Your task to perform on an android device: Open accessibility settings Image 0: 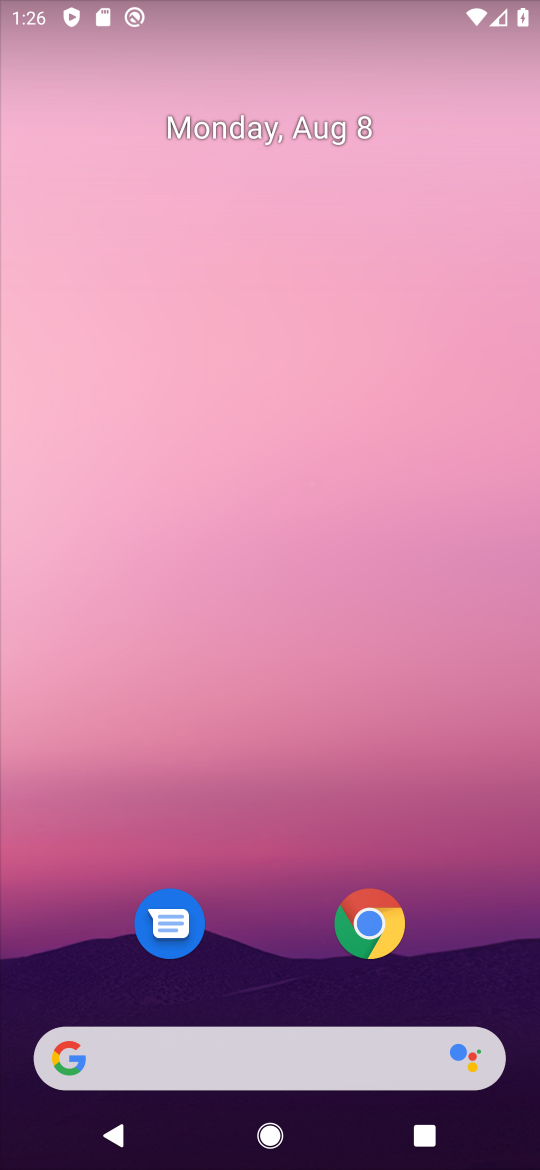
Step 0: drag from (302, 847) to (305, 106)
Your task to perform on an android device: Open accessibility settings Image 1: 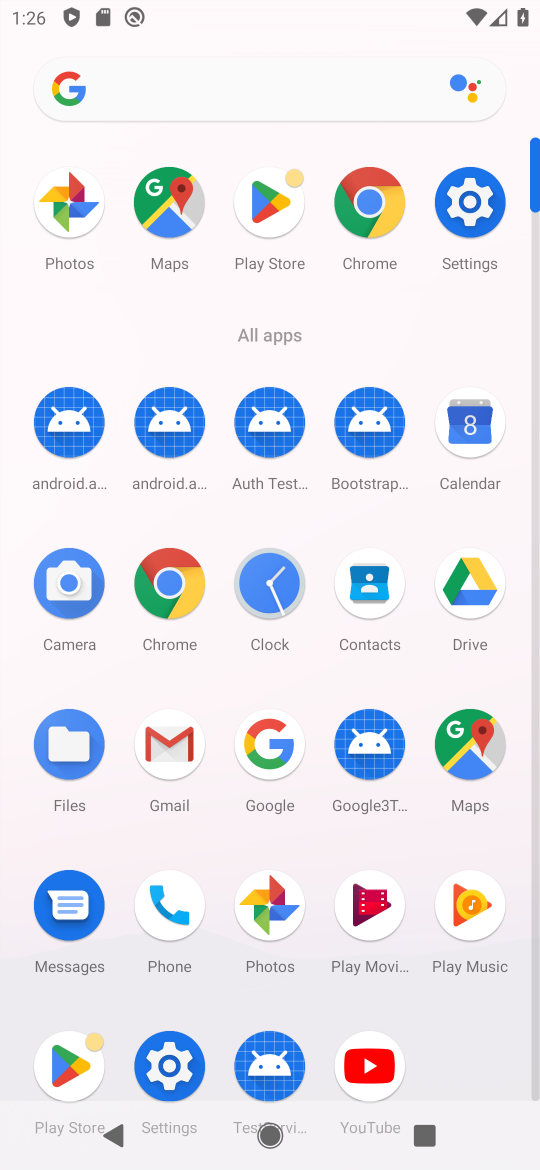
Step 1: click (470, 215)
Your task to perform on an android device: Open accessibility settings Image 2: 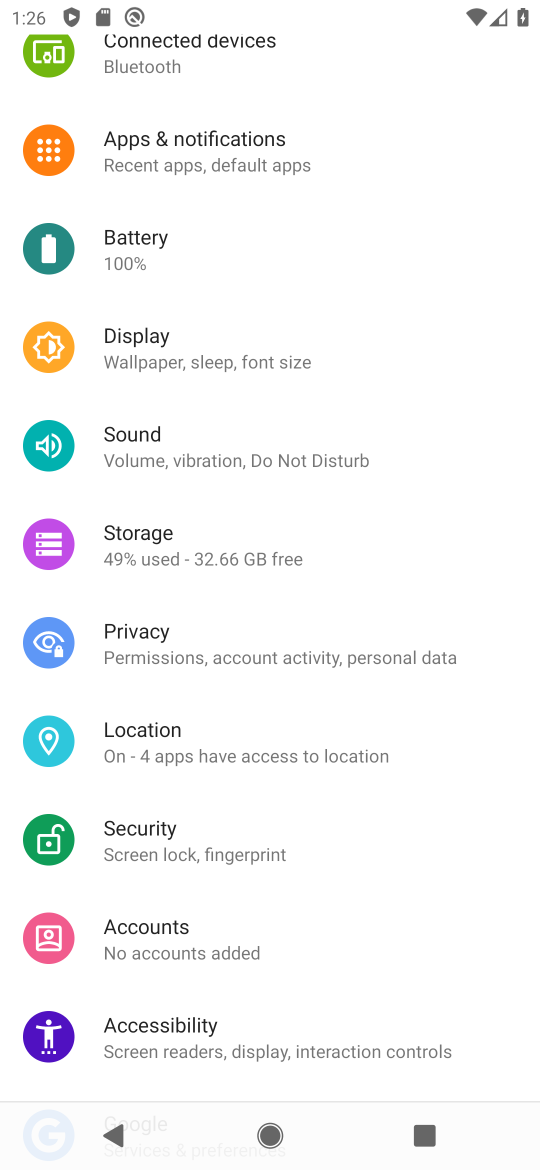
Step 2: click (168, 1032)
Your task to perform on an android device: Open accessibility settings Image 3: 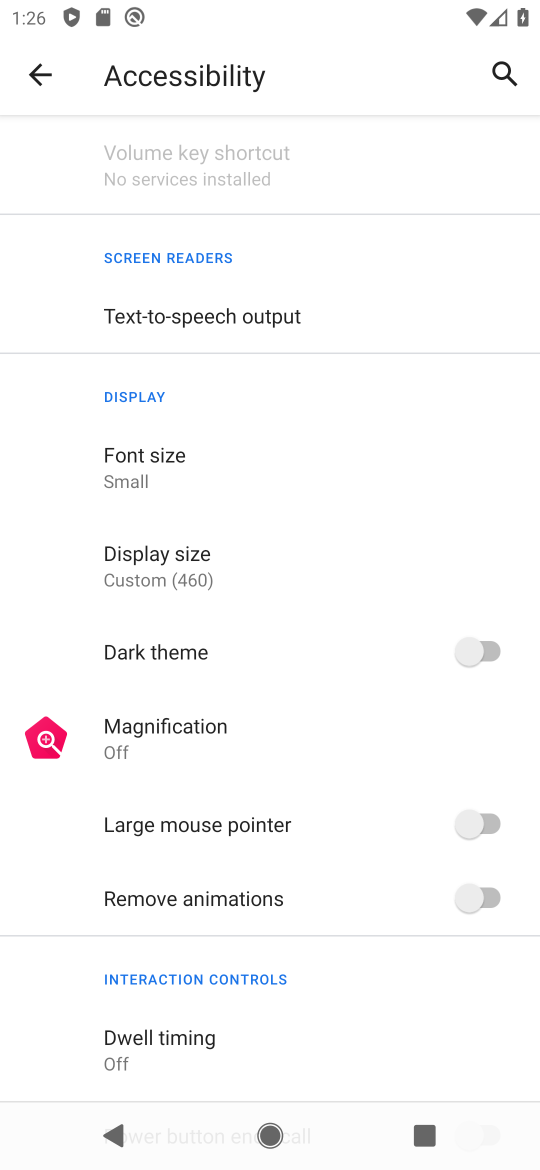
Step 3: task complete